Your task to perform on an android device: manage bookmarks in the chrome app Image 0: 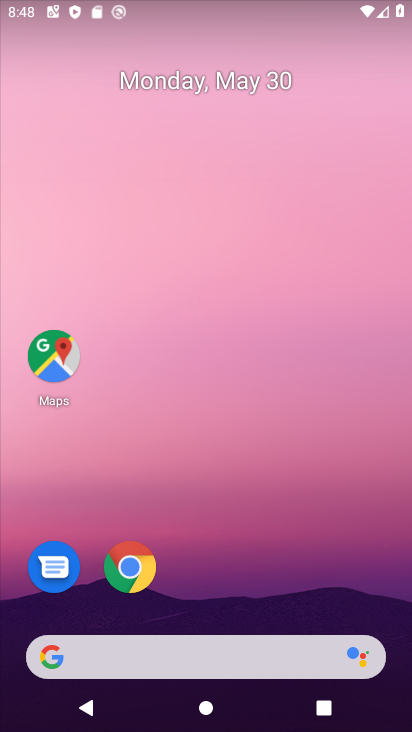
Step 0: click (135, 579)
Your task to perform on an android device: manage bookmarks in the chrome app Image 1: 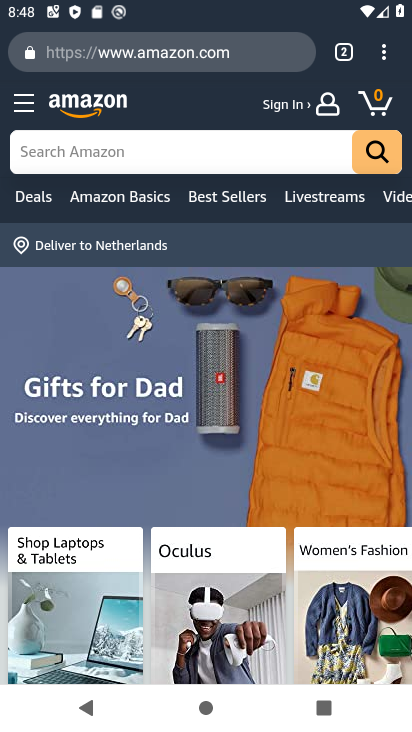
Step 1: click (391, 51)
Your task to perform on an android device: manage bookmarks in the chrome app Image 2: 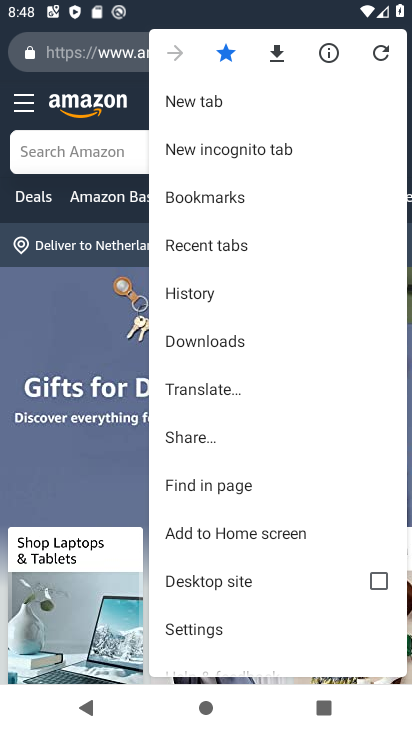
Step 2: click (250, 202)
Your task to perform on an android device: manage bookmarks in the chrome app Image 3: 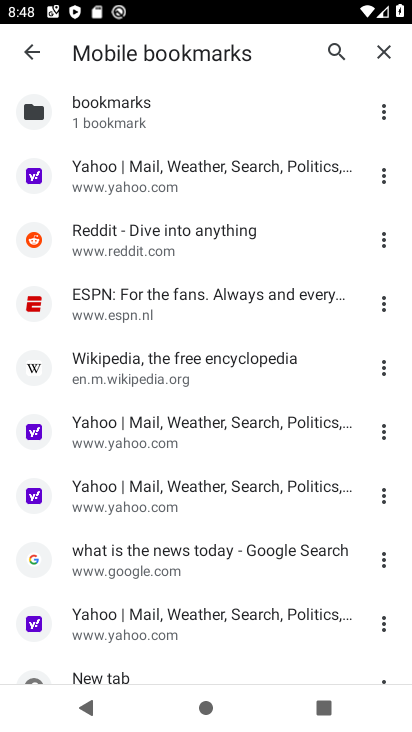
Step 3: click (389, 381)
Your task to perform on an android device: manage bookmarks in the chrome app Image 4: 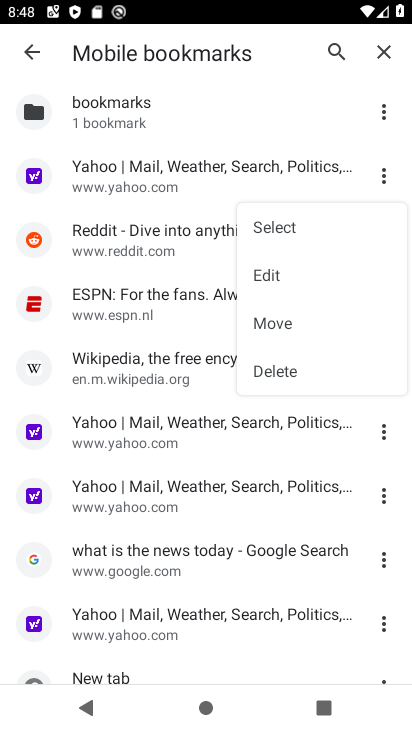
Step 4: click (257, 369)
Your task to perform on an android device: manage bookmarks in the chrome app Image 5: 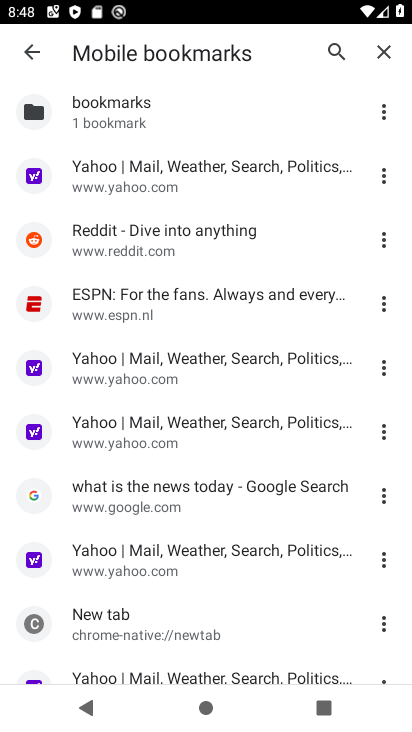
Step 5: click (395, 627)
Your task to perform on an android device: manage bookmarks in the chrome app Image 6: 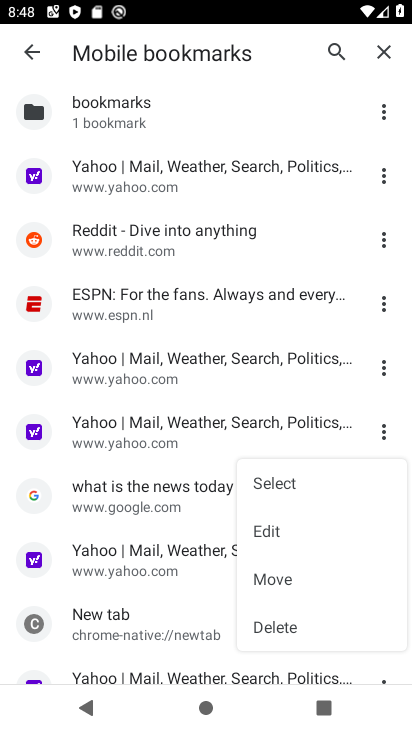
Step 6: click (295, 628)
Your task to perform on an android device: manage bookmarks in the chrome app Image 7: 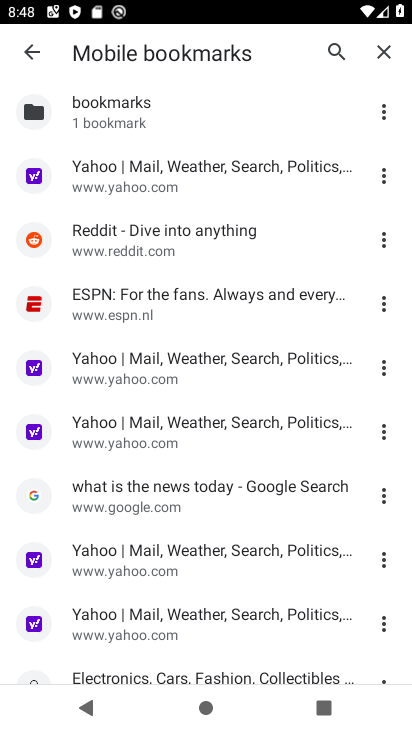
Step 7: click (384, 311)
Your task to perform on an android device: manage bookmarks in the chrome app Image 8: 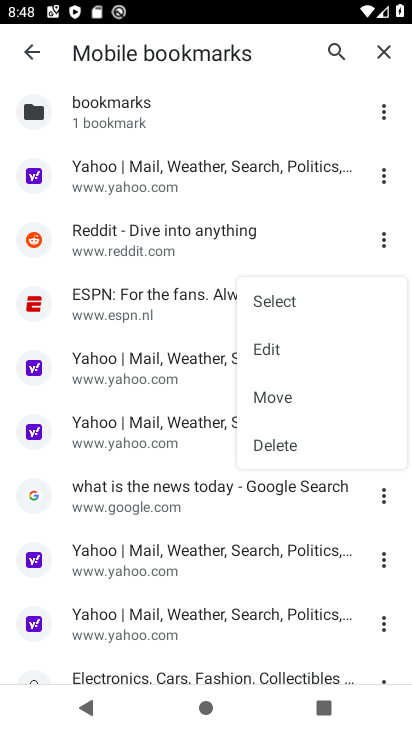
Step 8: click (282, 445)
Your task to perform on an android device: manage bookmarks in the chrome app Image 9: 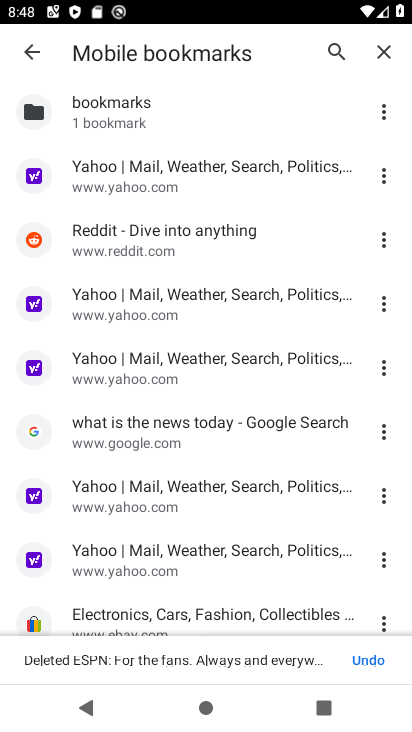
Step 9: task complete